Your task to perform on an android device: Open CNN.com Image 0: 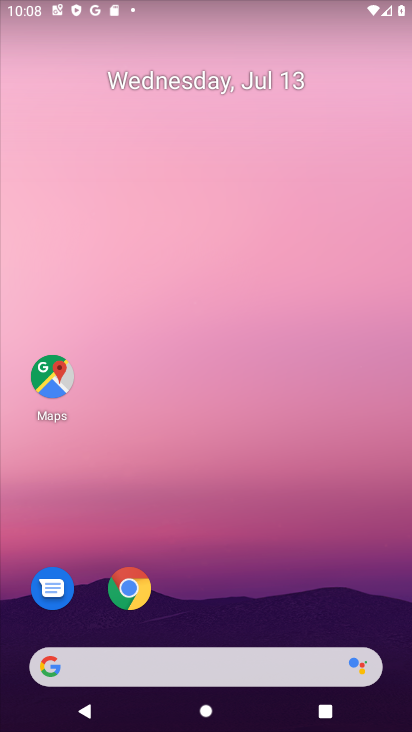
Step 0: drag from (204, 603) to (204, 34)
Your task to perform on an android device: Open CNN.com Image 1: 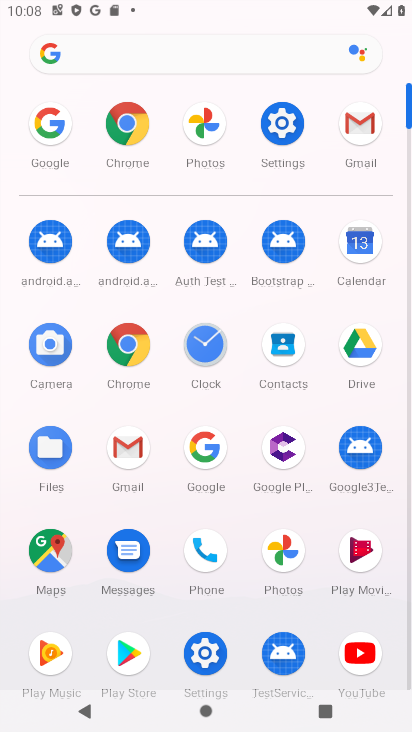
Step 1: click (211, 448)
Your task to perform on an android device: Open CNN.com Image 2: 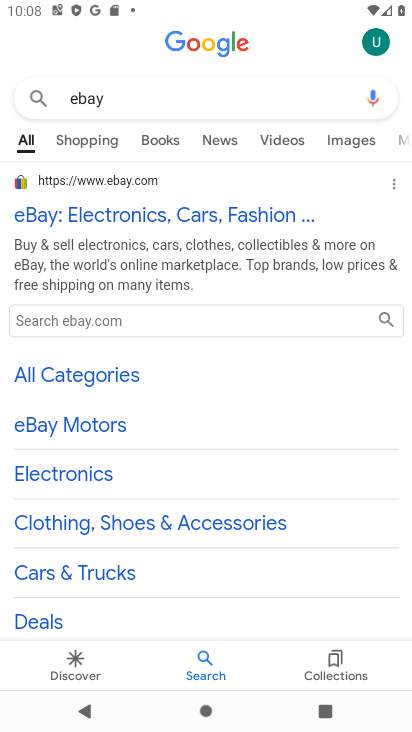
Step 2: click (183, 100)
Your task to perform on an android device: Open CNN.com Image 3: 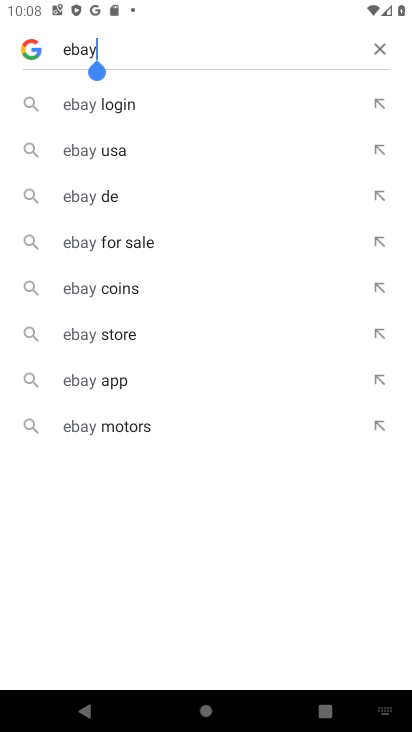
Step 3: click (378, 46)
Your task to perform on an android device: Open CNN.com Image 4: 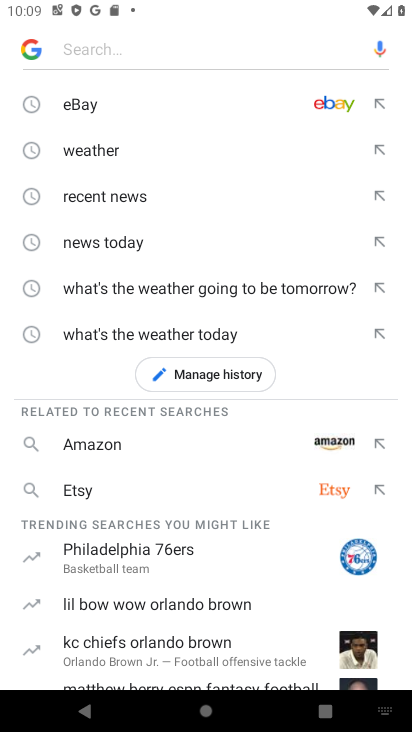
Step 4: type "cnn.com"
Your task to perform on an android device: Open CNN.com Image 5: 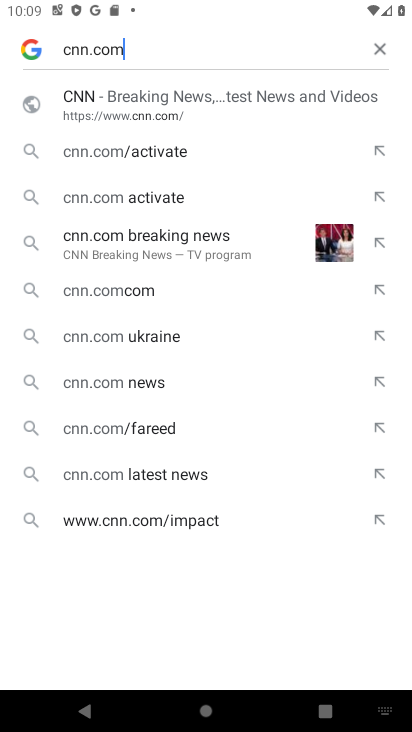
Step 5: click (136, 99)
Your task to perform on an android device: Open CNN.com Image 6: 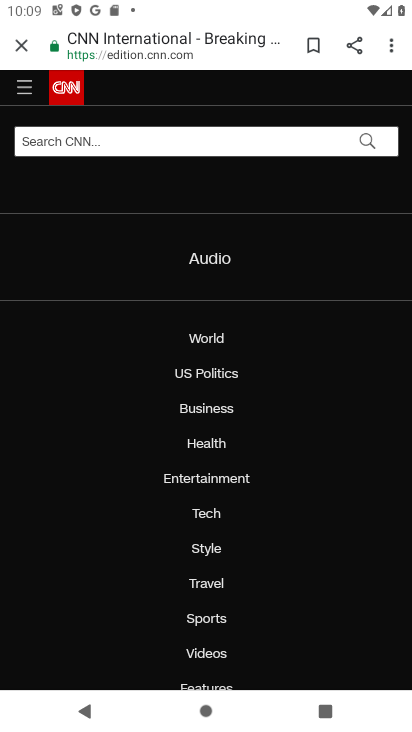
Step 6: task complete